Your task to perform on an android device: Open Youtube and go to "Your channel" Image 0: 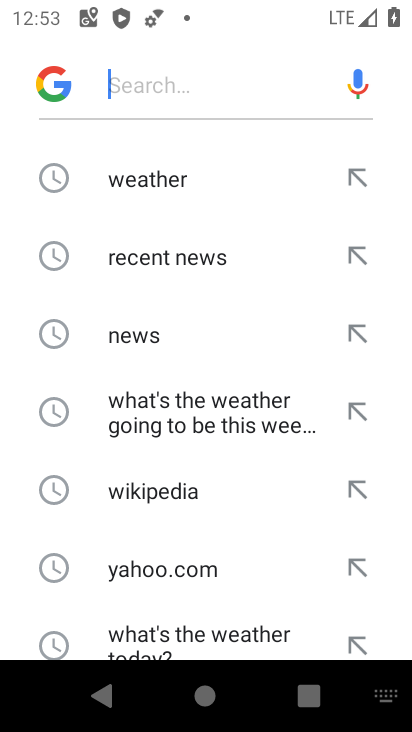
Step 0: press home button
Your task to perform on an android device: Open Youtube and go to "Your channel" Image 1: 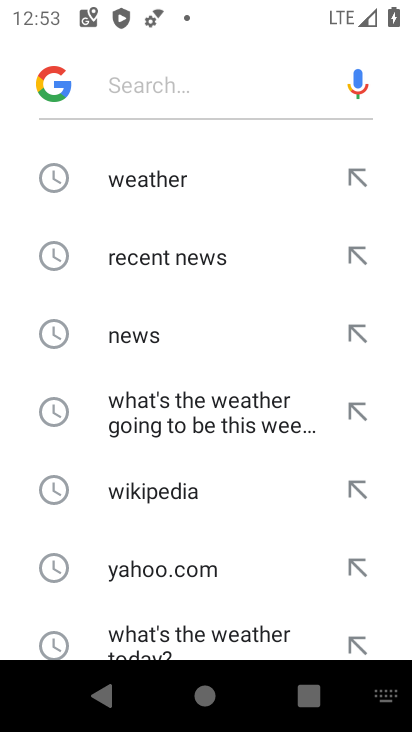
Step 1: press home button
Your task to perform on an android device: Open Youtube and go to "Your channel" Image 2: 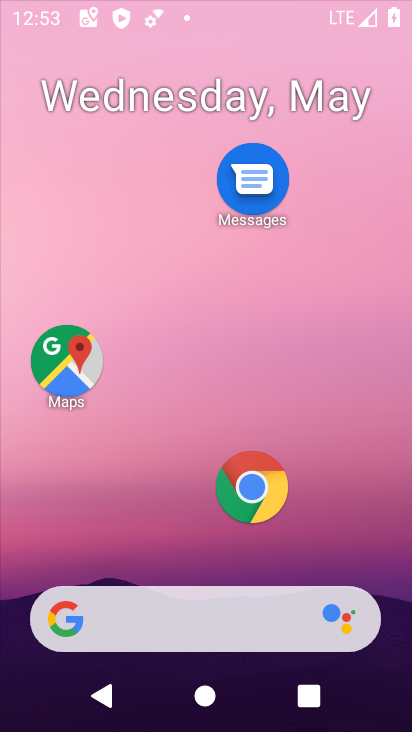
Step 2: press home button
Your task to perform on an android device: Open Youtube and go to "Your channel" Image 3: 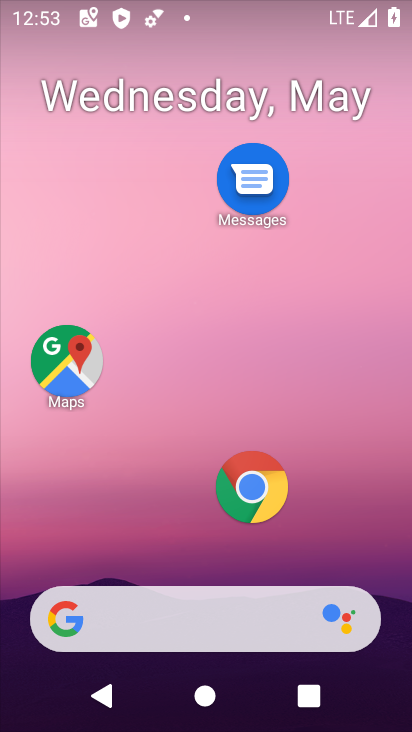
Step 3: press home button
Your task to perform on an android device: Open Youtube and go to "Your channel" Image 4: 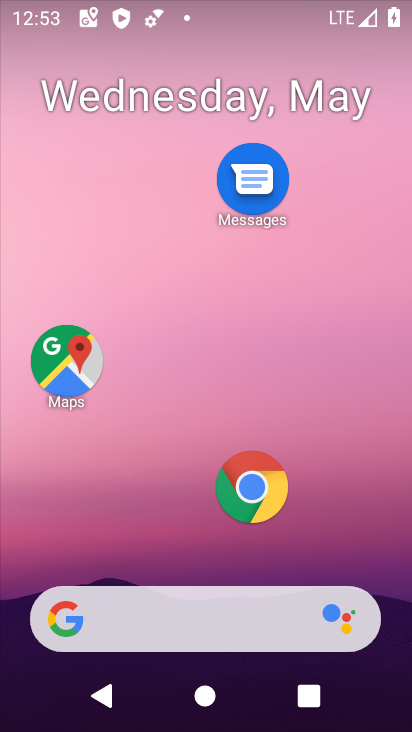
Step 4: drag from (168, 549) to (214, 119)
Your task to perform on an android device: Open Youtube and go to "Your channel" Image 5: 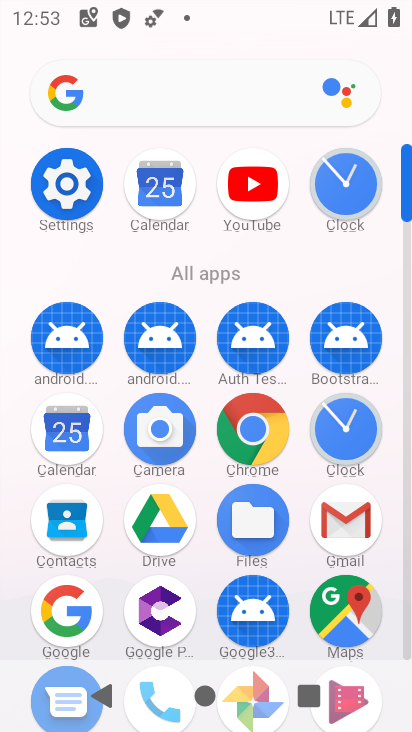
Step 5: click (245, 220)
Your task to perform on an android device: Open Youtube and go to "Your channel" Image 6: 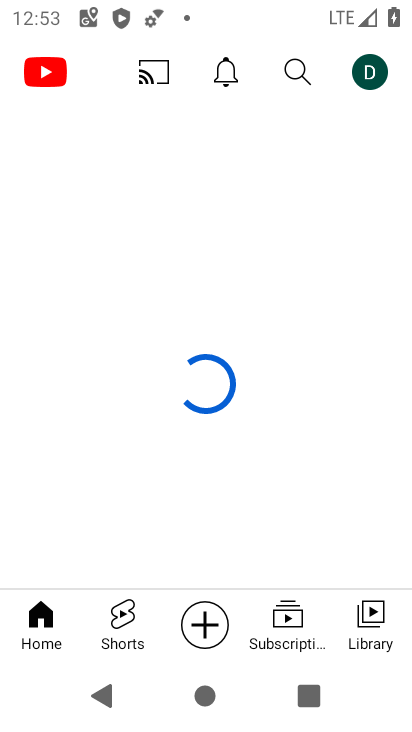
Step 6: click (369, 65)
Your task to perform on an android device: Open Youtube and go to "Your channel" Image 7: 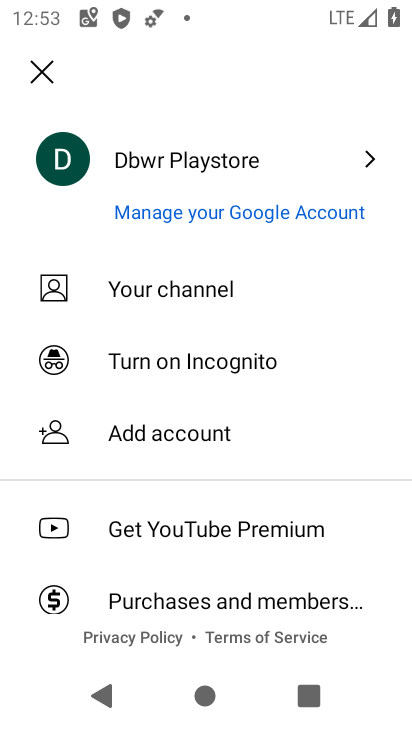
Step 7: click (187, 300)
Your task to perform on an android device: Open Youtube and go to "Your channel" Image 8: 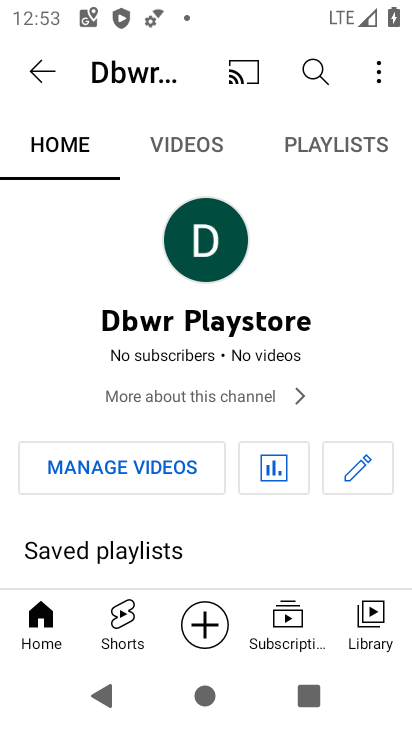
Step 8: task complete